Your task to perform on an android device: open app "Airtel Thanks" (install if not already installed) Image 0: 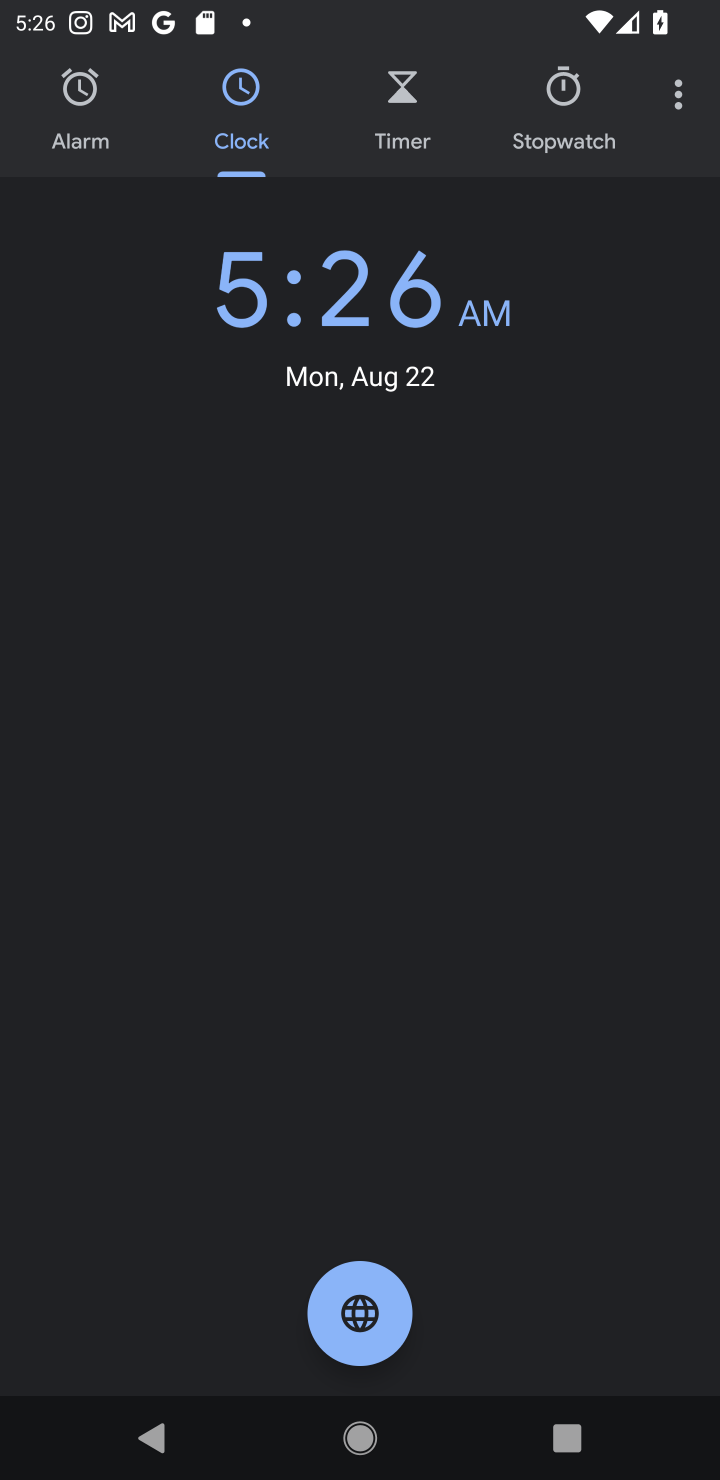
Step 0: press home button
Your task to perform on an android device: open app "Airtel Thanks" (install if not already installed) Image 1: 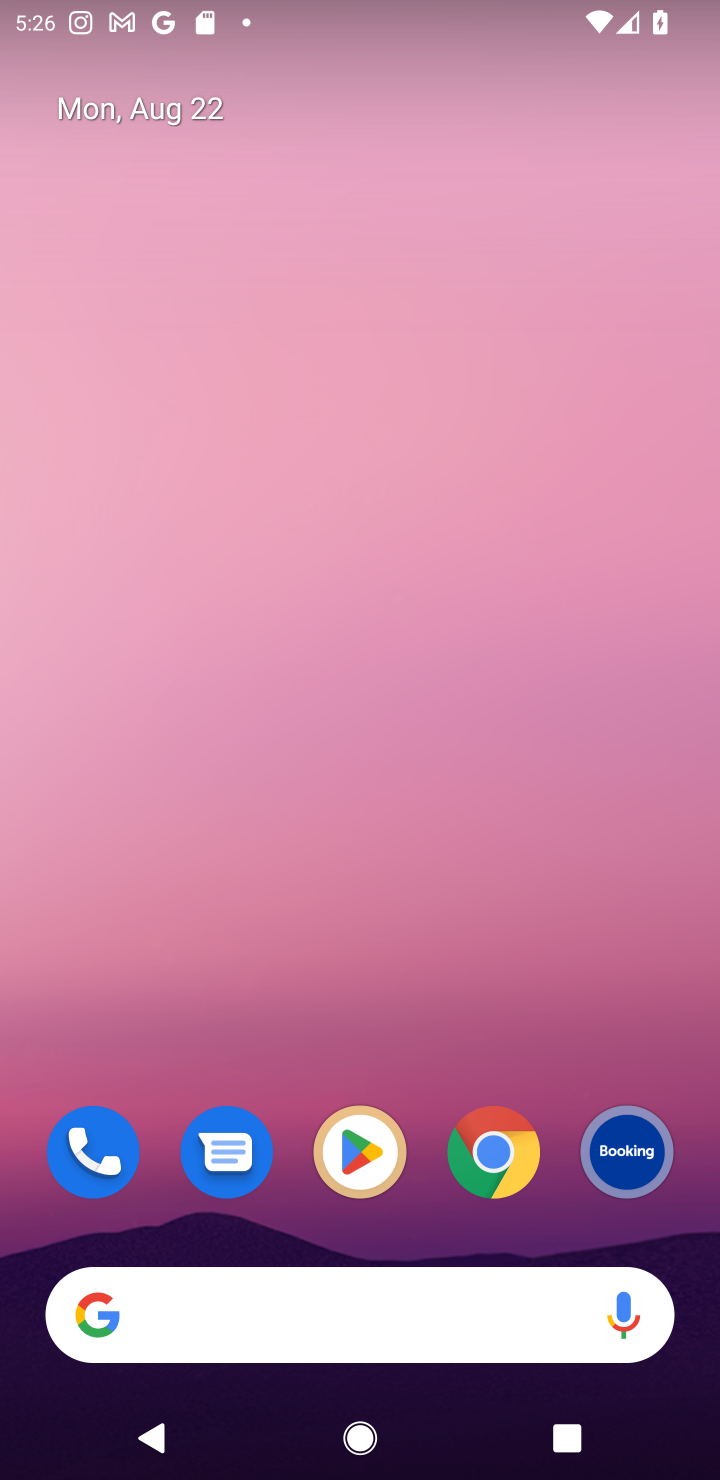
Step 1: click (315, 1150)
Your task to perform on an android device: open app "Airtel Thanks" (install if not already installed) Image 2: 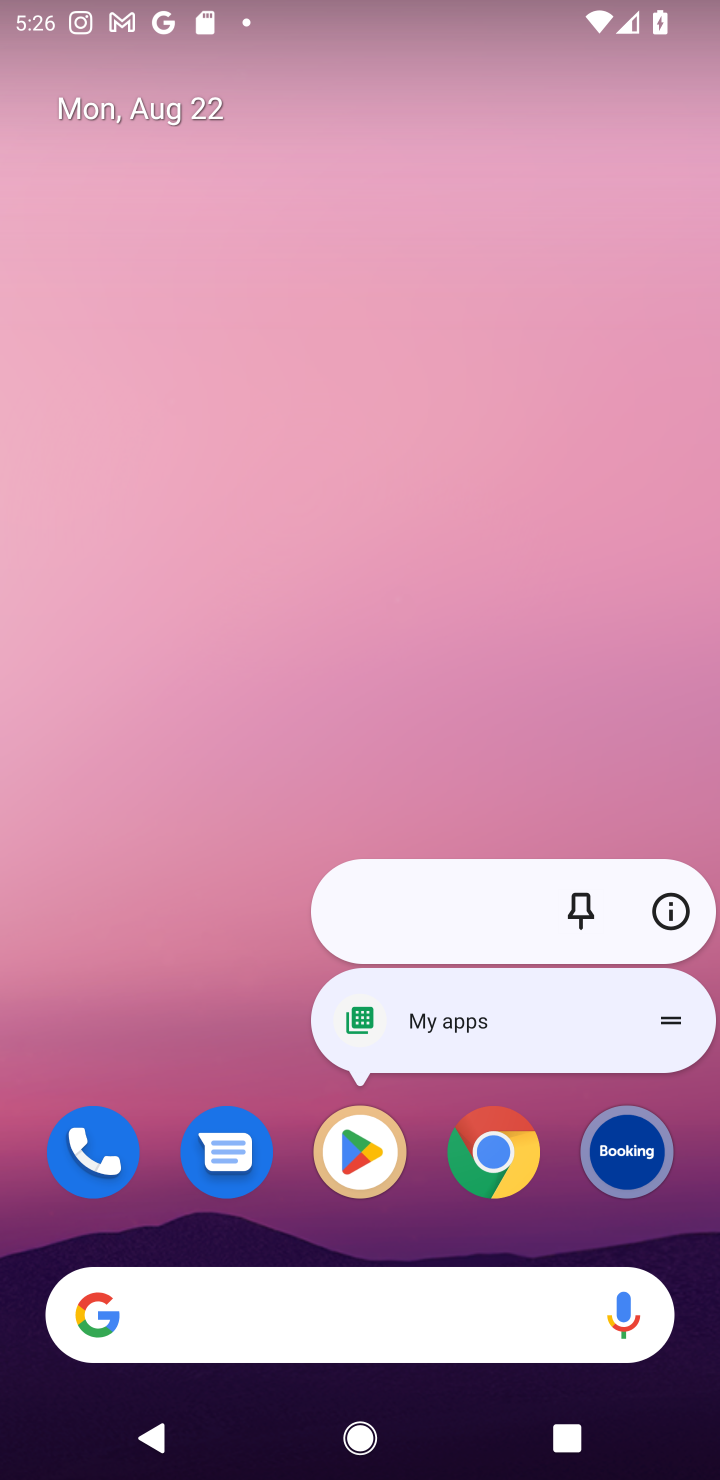
Step 2: click (337, 1166)
Your task to perform on an android device: open app "Airtel Thanks" (install if not already installed) Image 3: 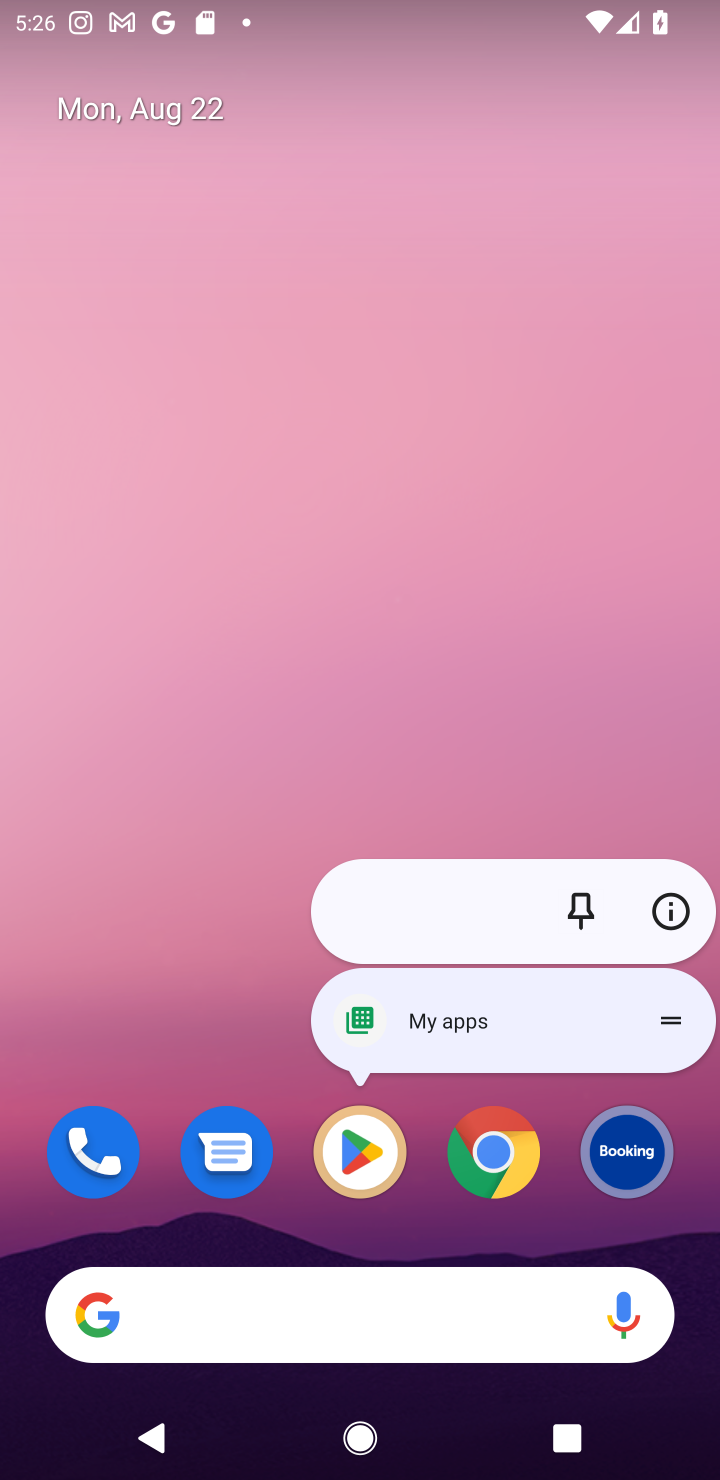
Step 3: click (342, 1166)
Your task to perform on an android device: open app "Airtel Thanks" (install if not already installed) Image 4: 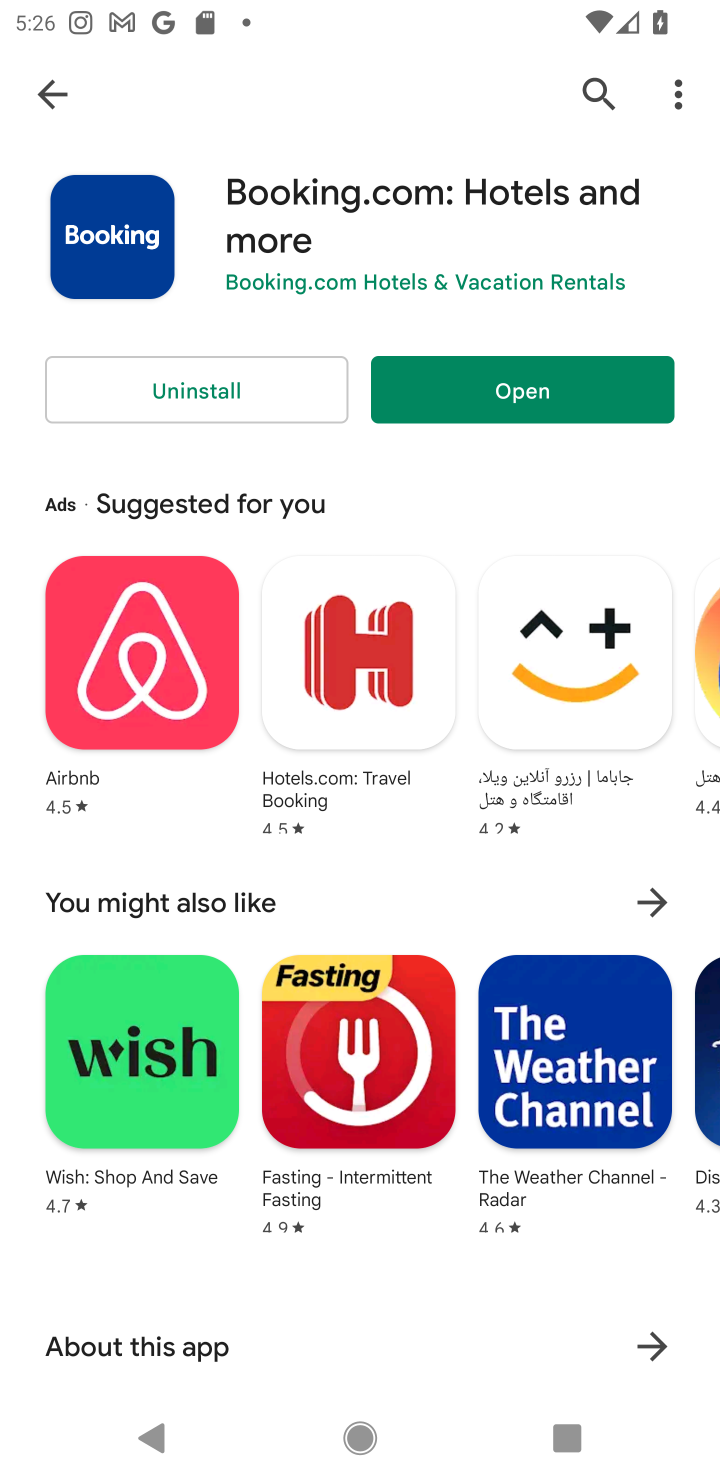
Step 4: click (66, 85)
Your task to perform on an android device: open app "Airtel Thanks" (install if not already installed) Image 5: 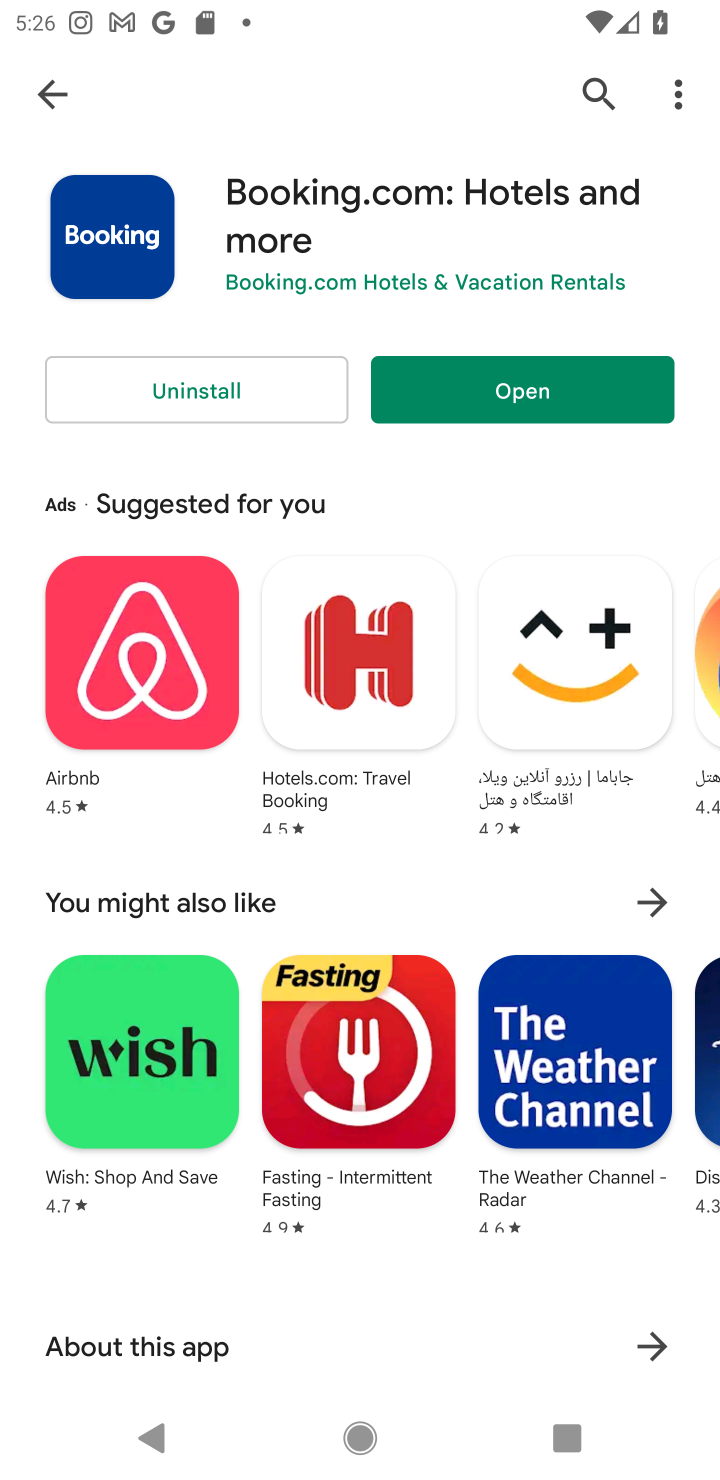
Step 5: click (63, 89)
Your task to perform on an android device: open app "Airtel Thanks" (install if not already installed) Image 6: 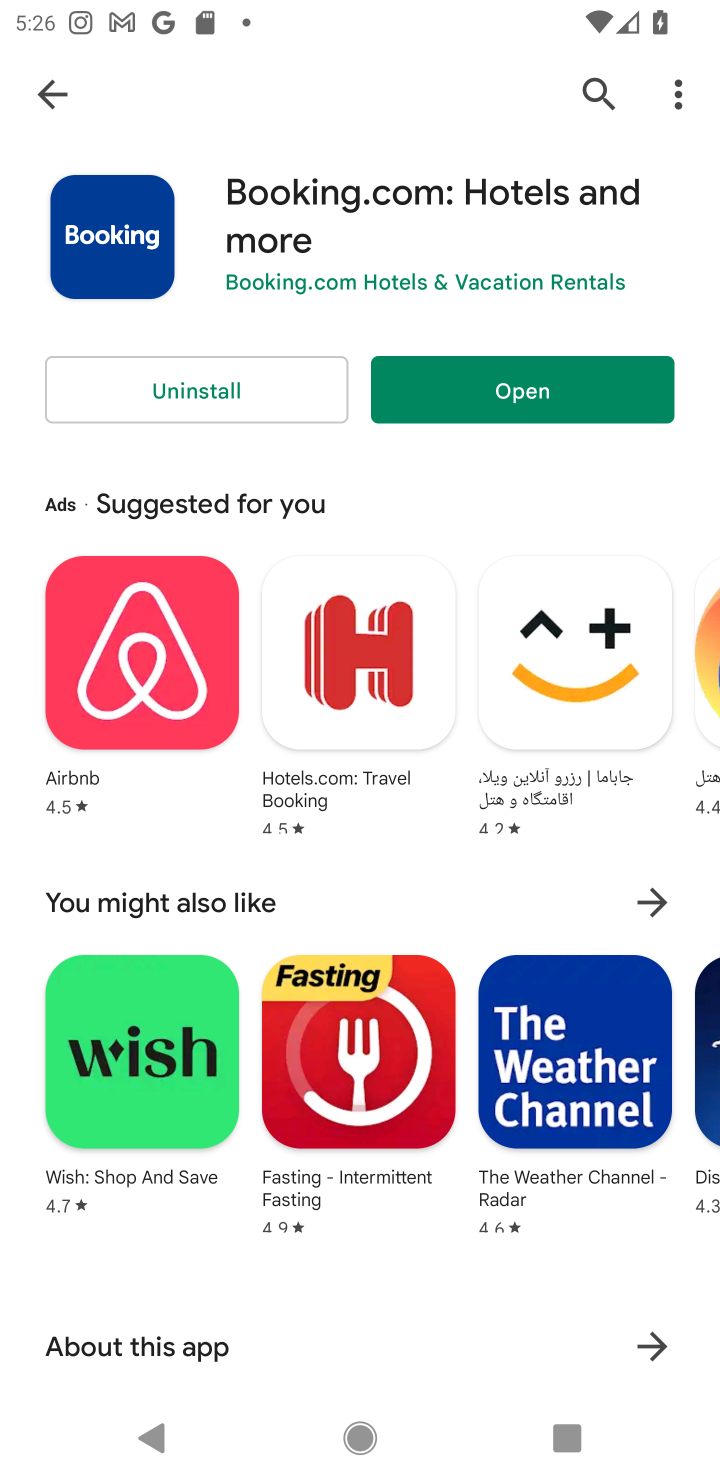
Step 6: click (59, 94)
Your task to perform on an android device: open app "Airtel Thanks" (install if not already installed) Image 7: 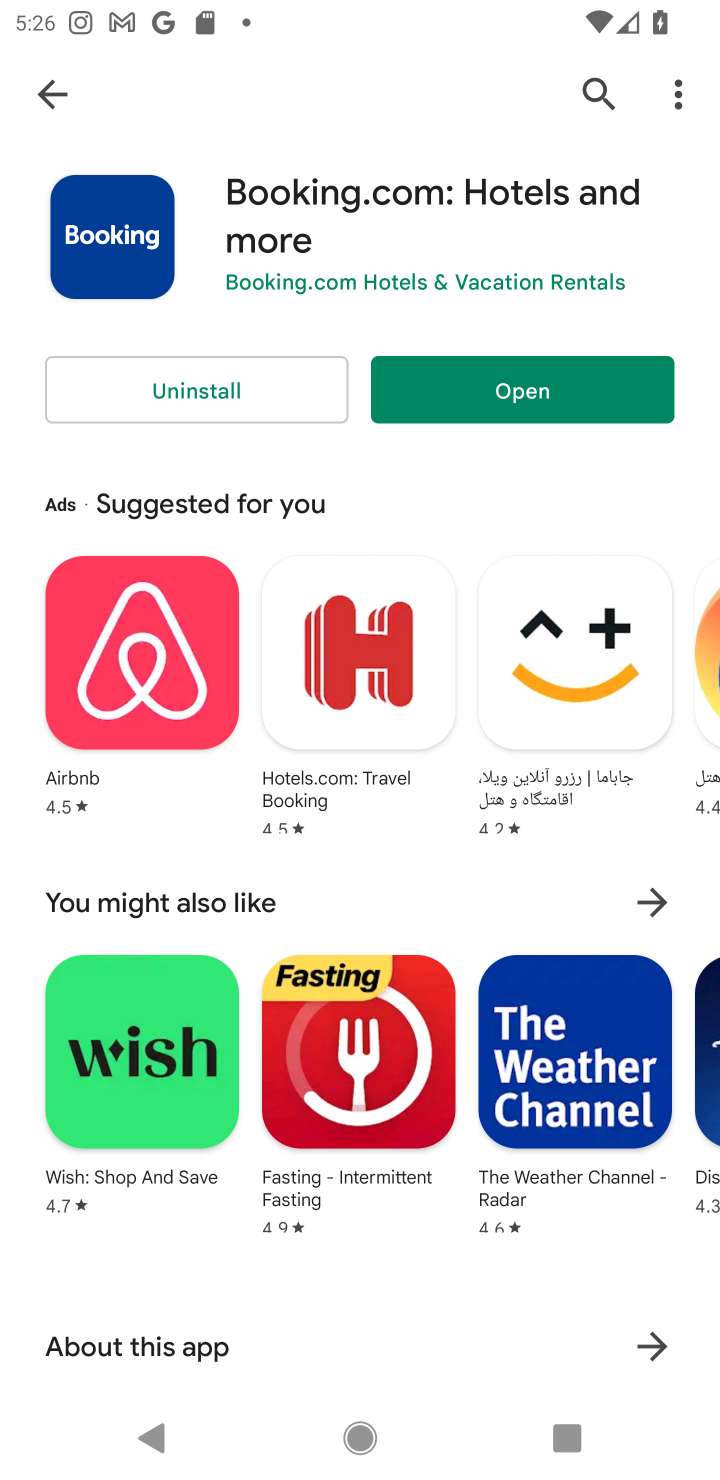
Step 7: click (81, 125)
Your task to perform on an android device: open app "Airtel Thanks" (install if not already installed) Image 8: 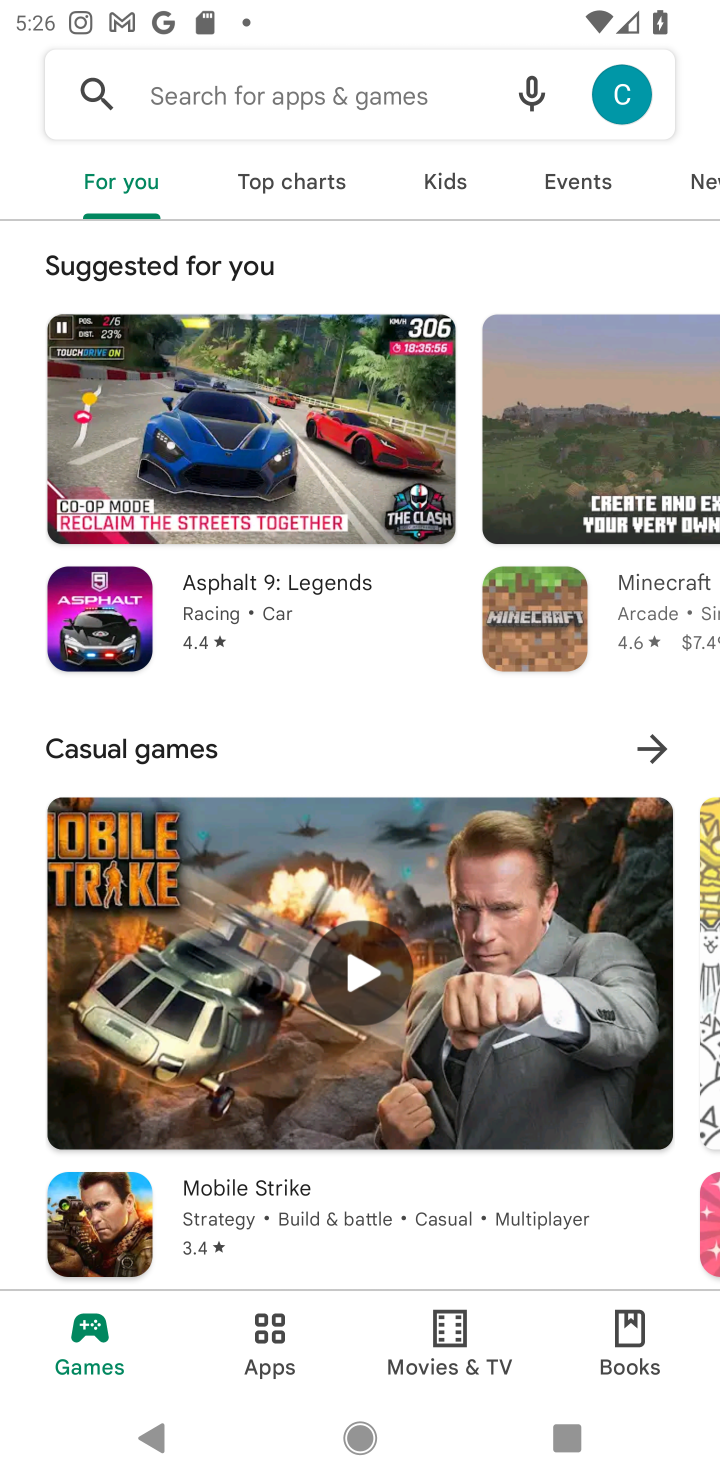
Step 8: click (246, 135)
Your task to perform on an android device: open app "Airtel Thanks" (install if not already installed) Image 9: 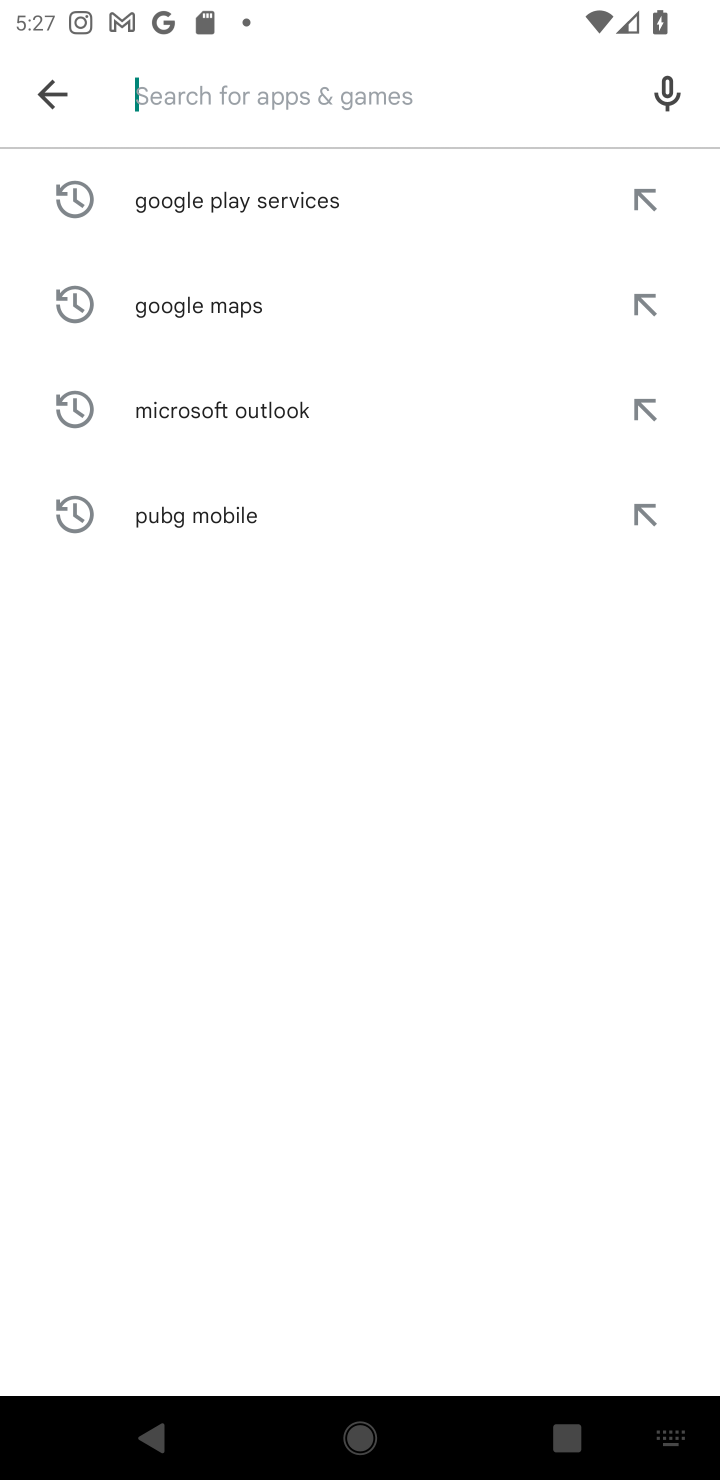
Step 9: type "Airtel Thanks"
Your task to perform on an android device: open app "Airtel Thanks" (install if not already installed) Image 10: 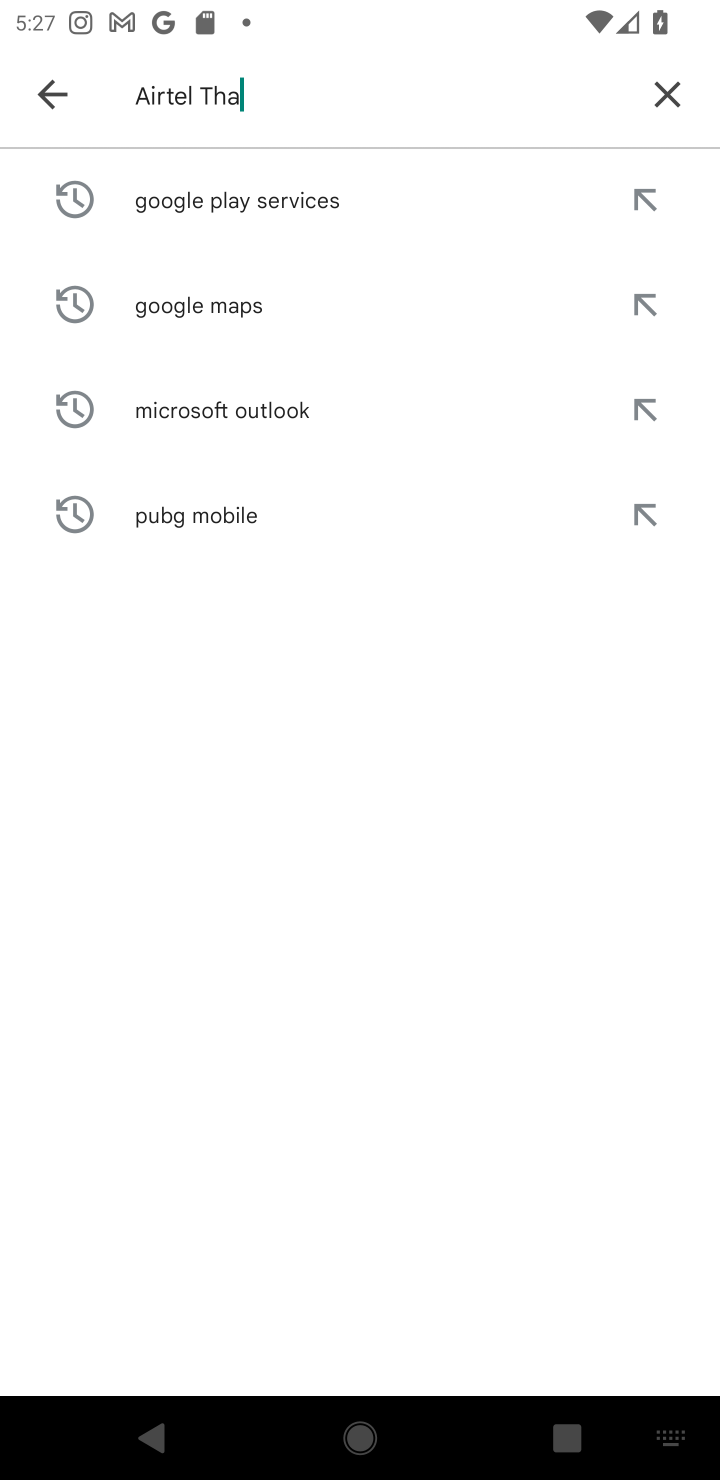
Step 10: type ""
Your task to perform on an android device: open app "Airtel Thanks" (install if not already installed) Image 11: 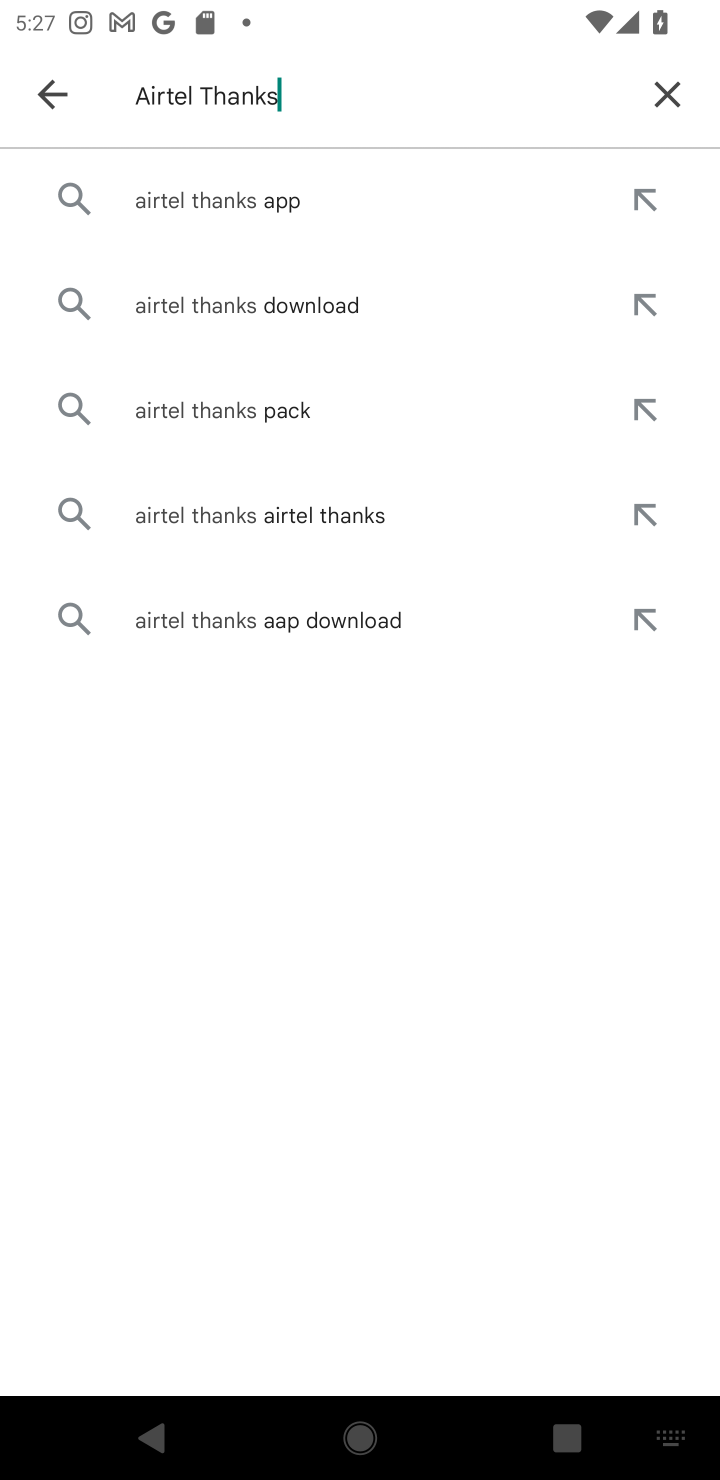
Step 11: click (199, 194)
Your task to perform on an android device: open app "Airtel Thanks" (install if not already installed) Image 12: 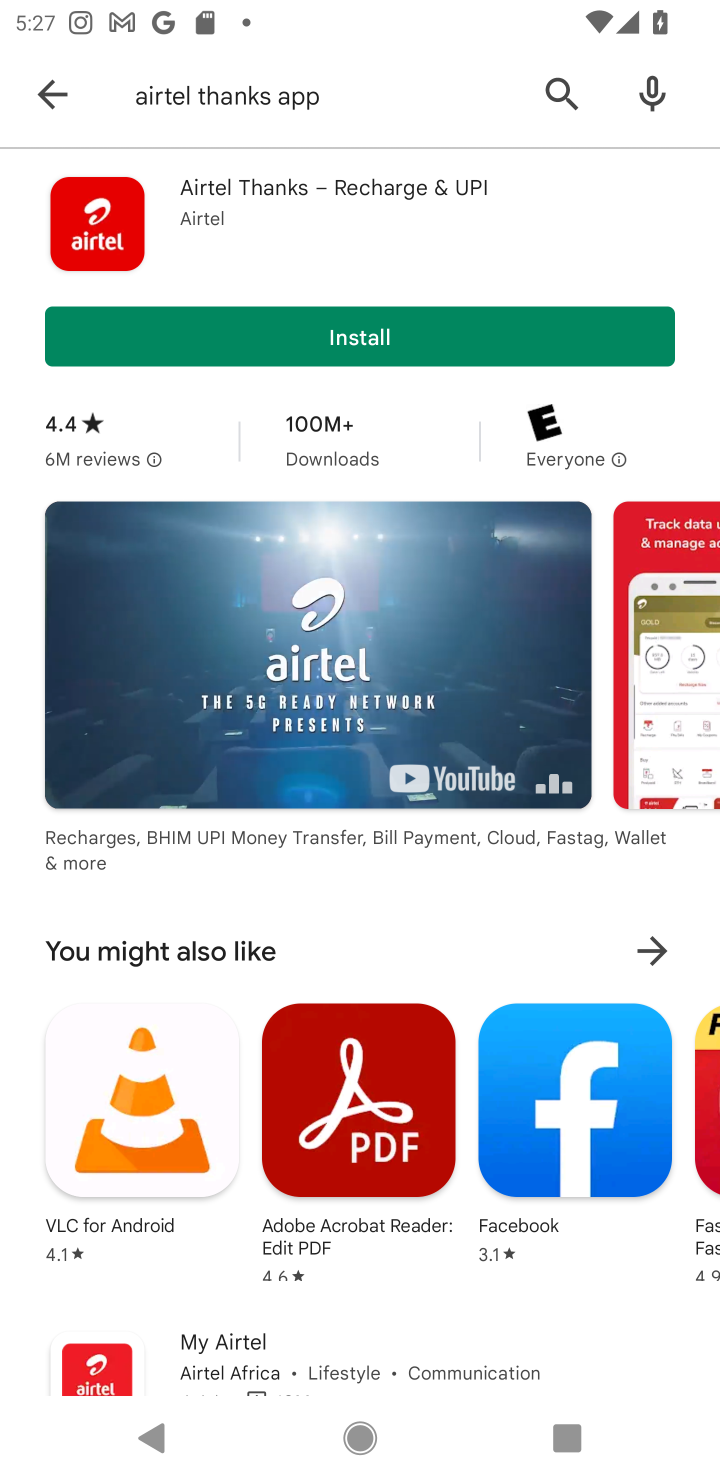
Step 12: click (461, 348)
Your task to perform on an android device: open app "Airtel Thanks" (install if not already installed) Image 13: 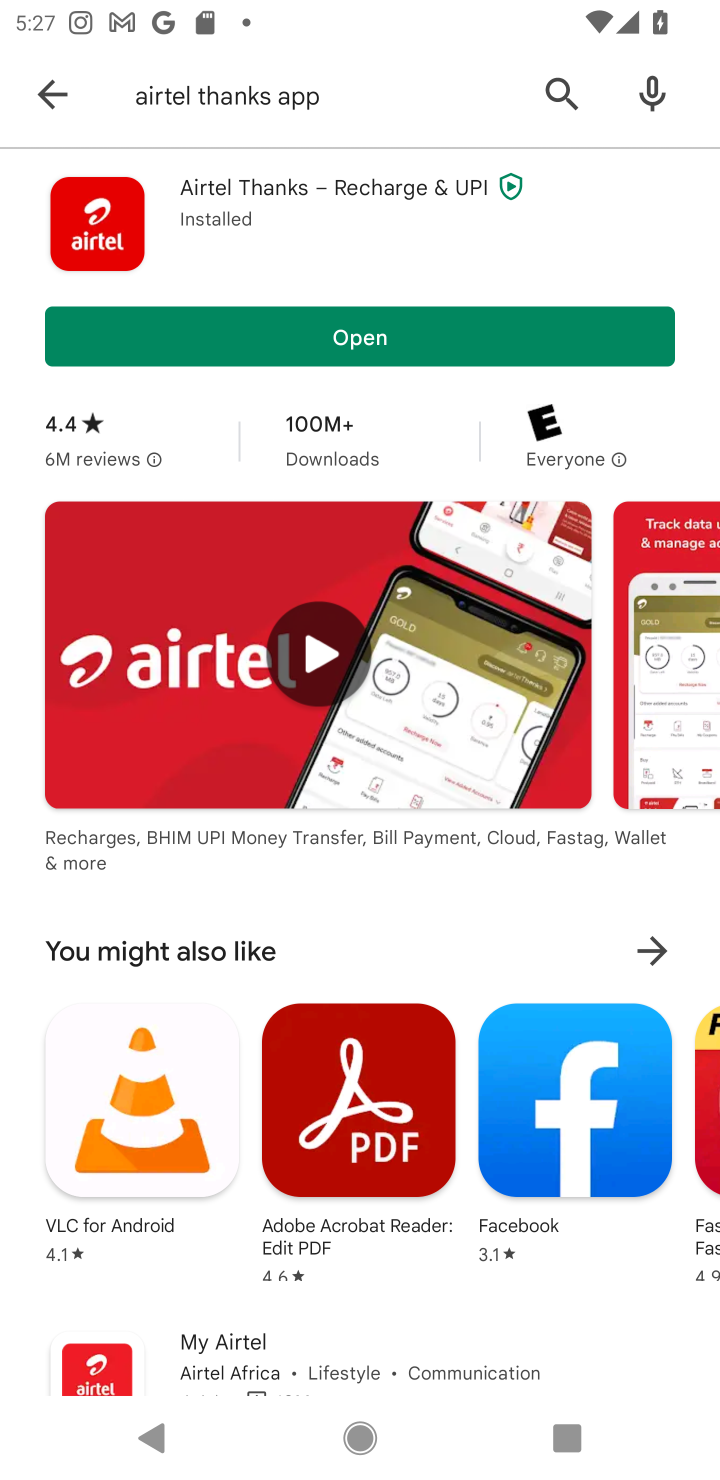
Step 13: click (493, 349)
Your task to perform on an android device: open app "Airtel Thanks" (install if not already installed) Image 14: 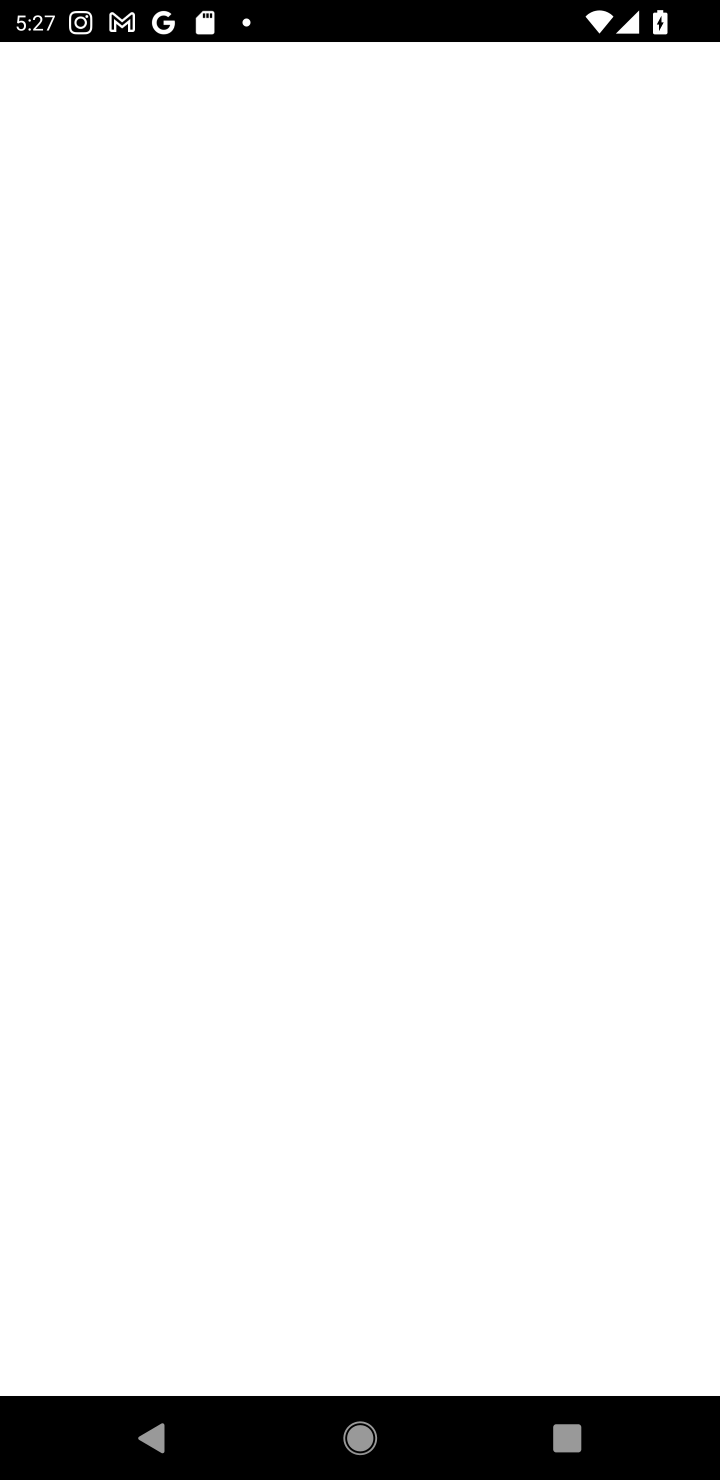
Step 14: task complete